Your task to perform on an android device: open the mobile data screen to see how much data has been used Image 0: 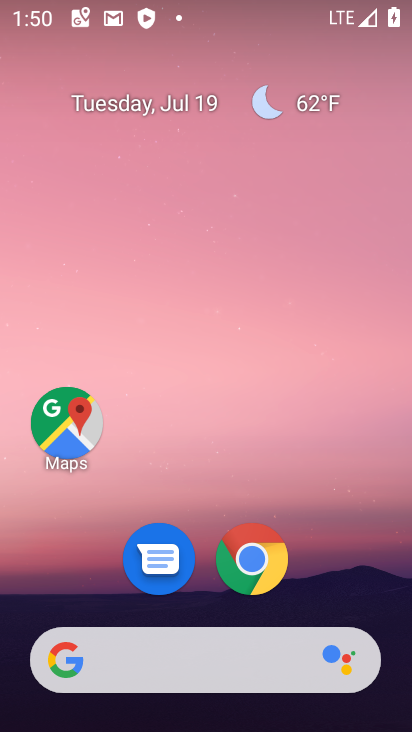
Step 0: drag from (224, 580) to (212, 84)
Your task to perform on an android device: open the mobile data screen to see how much data has been used Image 1: 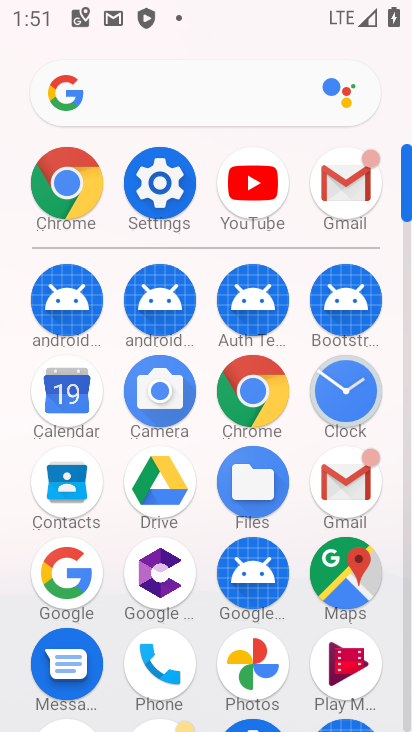
Step 1: drag from (222, 527) to (250, 143)
Your task to perform on an android device: open the mobile data screen to see how much data has been used Image 2: 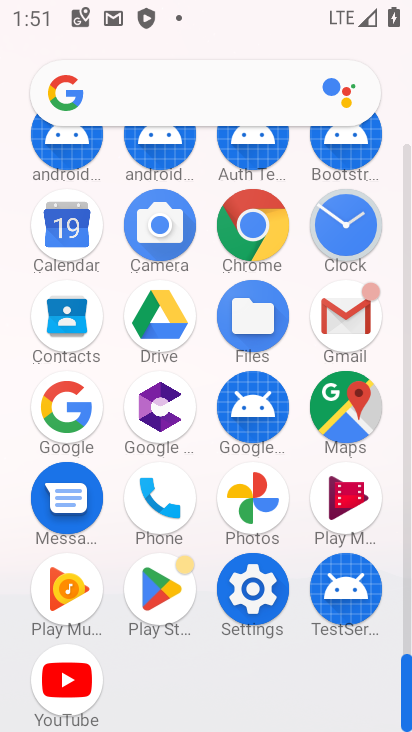
Step 2: click (252, 596)
Your task to perform on an android device: open the mobile data screen to see how much data has been used Image 3: 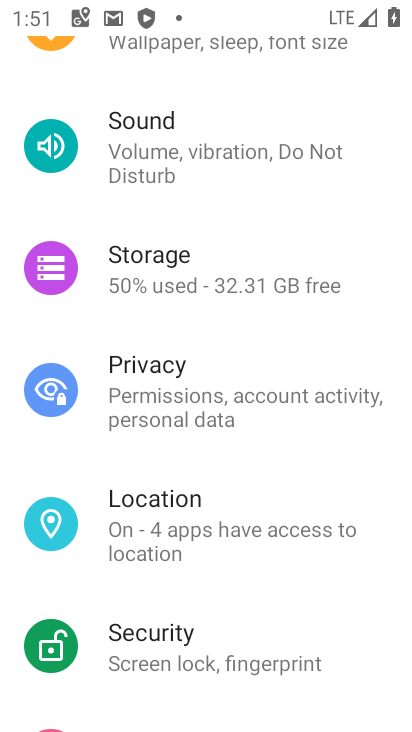
Step 3: drag from (198, 400) to (203, 579)
Your task to perform on an android device: open the mobile data screen to see how much data has been used Image 4: 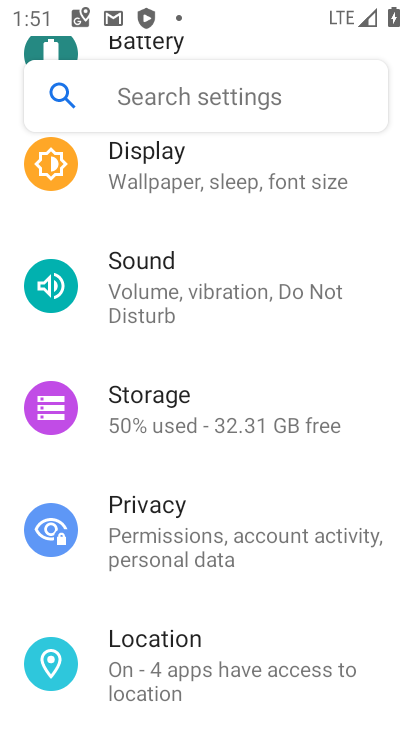
Step 4: drag from (193, 340) to (190, 616)
Your task to perform on an android device: open the mobile data screen to see how much data has been used Image 5: 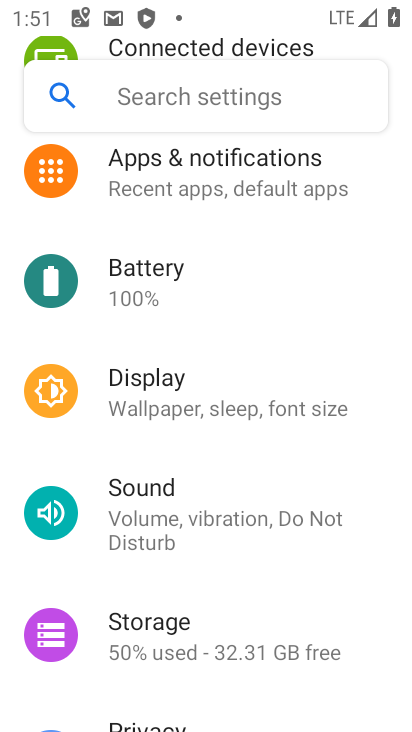
Step 5: drag from (185, 268) to (183, 552)
Your task to perform on an android device: open the mobile data screen to see how much data has been used Image 6: 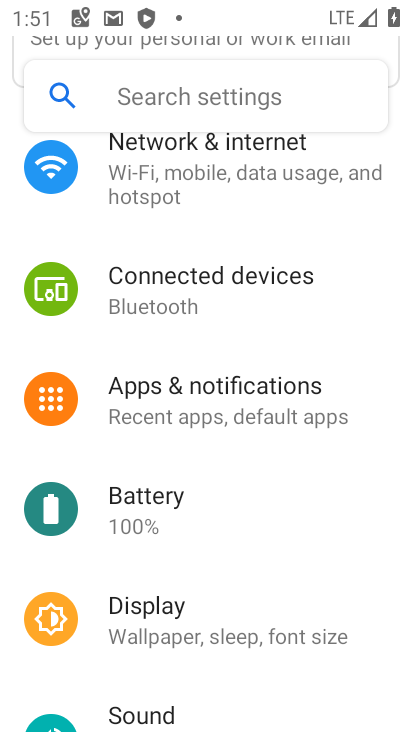
Step 6: click (187, 203)
Your task to perform on an android device: open the mobile data screen to see how much data has been used Image 7: 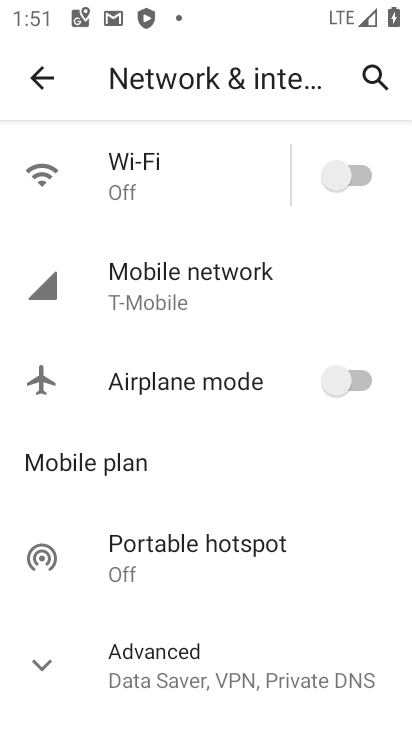
Step 7: click (200, 296)
Your task to perform on an android device: open the mobile data screen to see how much data has been used Image 8: 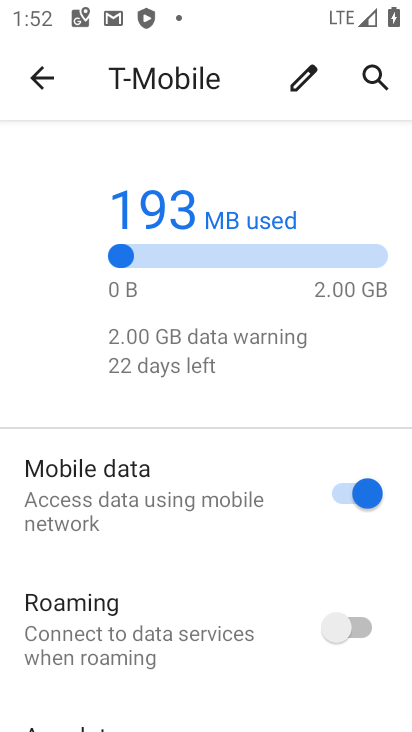
Step 8: drag from (176, 596) to (166, 267)
Your task to perform on an android device: open the mobile data screen to see how much data has been used Image 9: 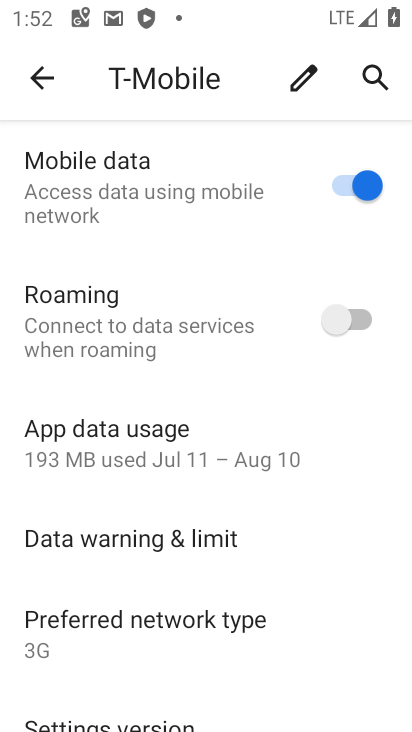
Step 9: click (146, 461)
Your task to perform on an android device: open the mobile data screen to see how much data has been used Image 10: 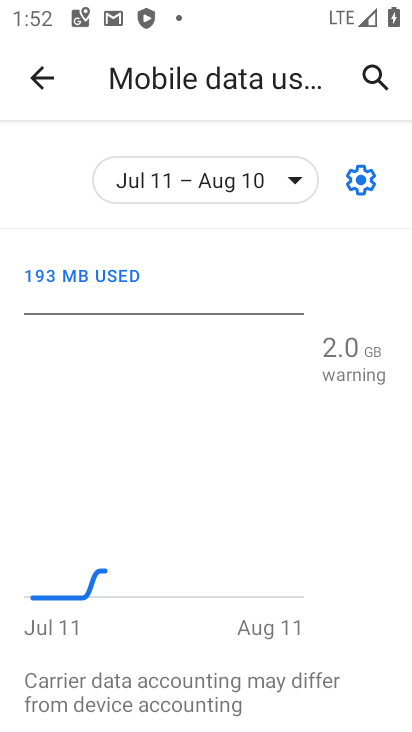
Step 10: task complete